Your task to perform on an android device: turn on wifi Image 0: 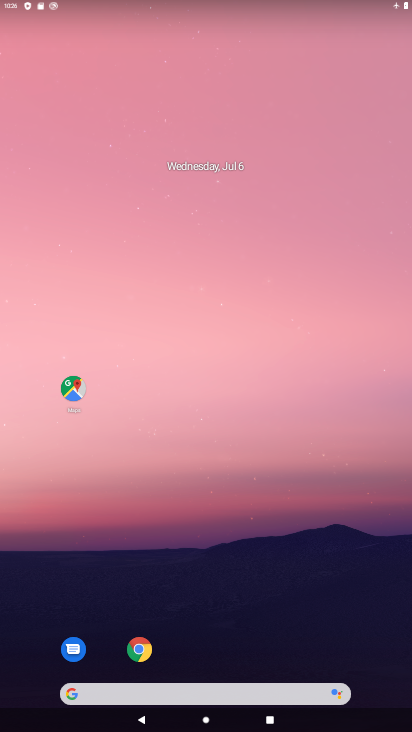
Step 0: drag from (389, 623) to (350, 107)
Your task to perform on an android device: turn on wifi Image 1: 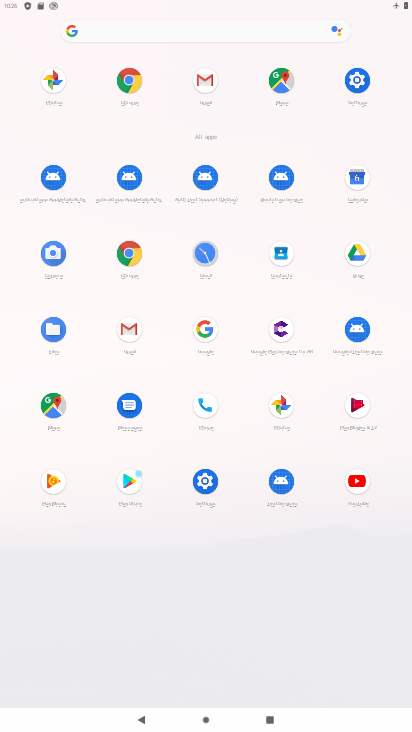
Step 1: click (353, 72)
Your task to perform on an android device: turn on wifi Image 2: 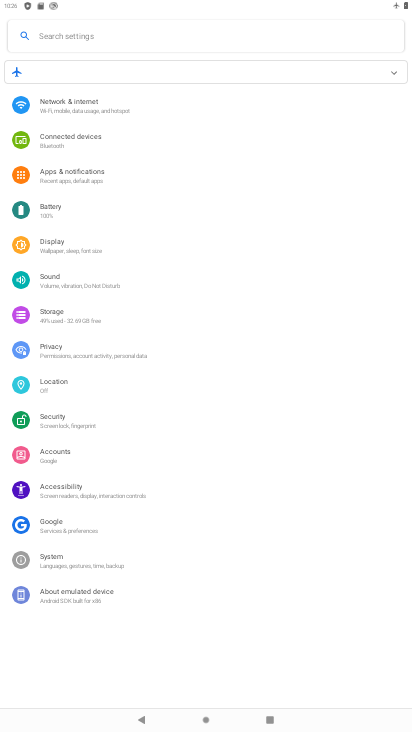
Step 2: click (175, 113)
Your task to perform on an android device: turn on wifi Image 3: 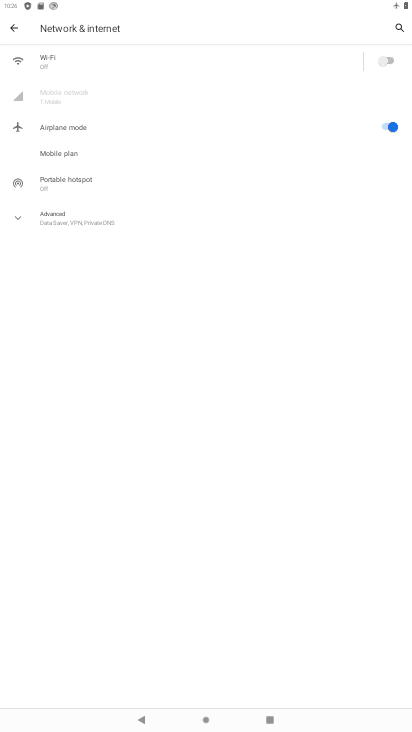
Step 3: click (391, 58)
Your task to perform on an android device: turn on wifi Image 4: 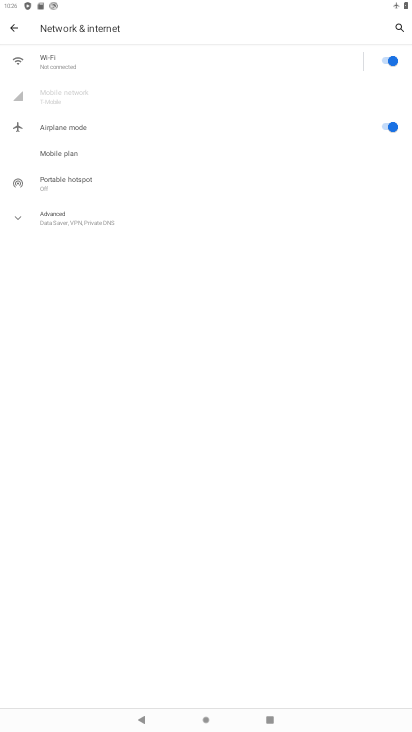
Step 4: task complete